Your task to perform on an android device: add a label to a message in the gmail app Image 0: 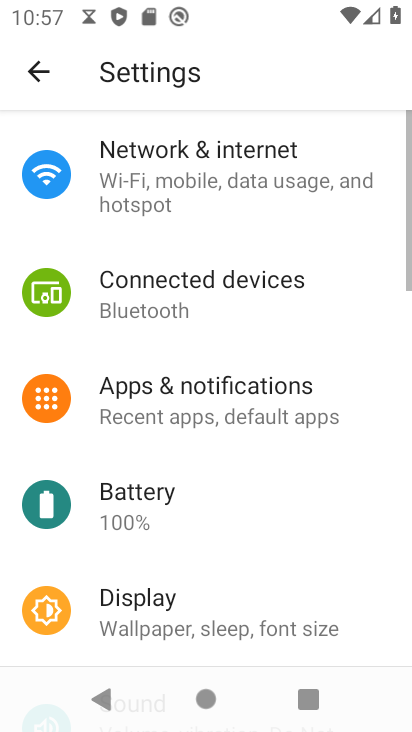
Step 0: press home button
Your task to perform on an android device: add a label to a message in the gmail app Image 1: 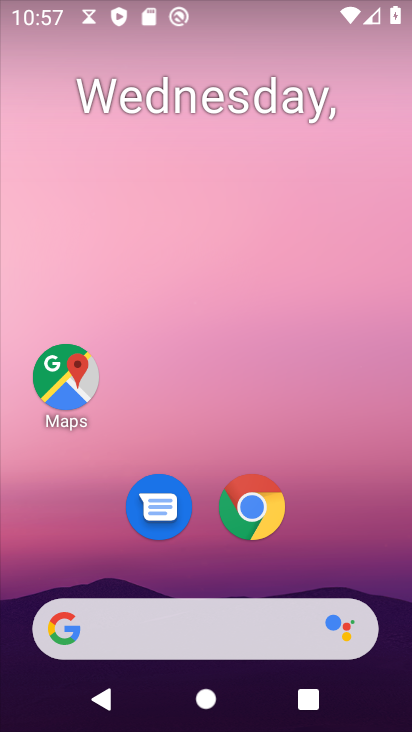
Step 1: drag from (287, 674) to (227, 215)
Your task to perform on an android device: add a label to a message in the gmail app Image 2: 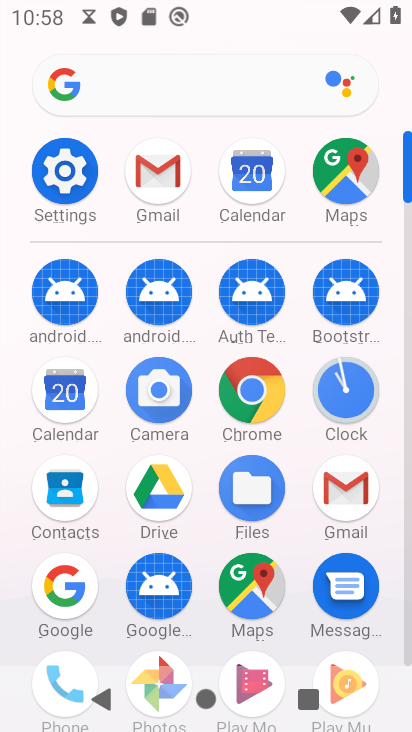
Step 2: click (168, 185)
Your task to perform on an android device: add a label to a message in the gmail app Image 3: 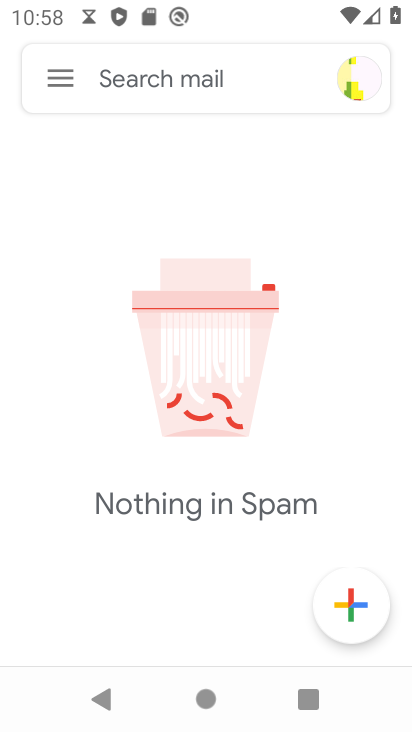
Step 3: click (52, 80)
Your task to perform on an android device: add a label to a message in the gmail app Image 4: 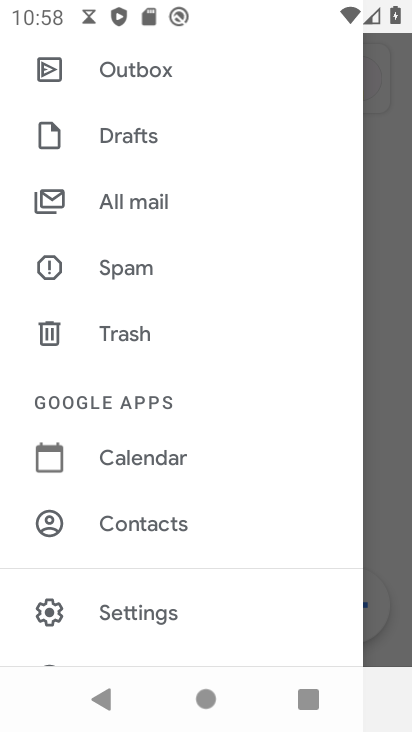
Step 4: click (142, 616)
Your task to perform on an android device: add a label to a message in the gmail app Image 5: 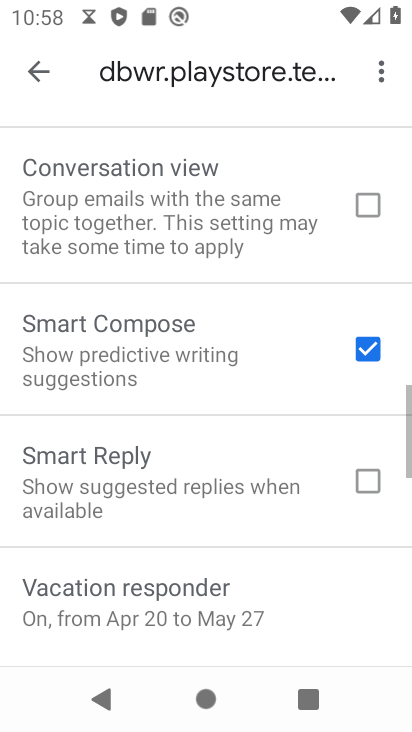
Step 5: drag from (131, 475) to (141, 662)
Your task to perform on an android device: add a label to a message in the gmail app Image 6: 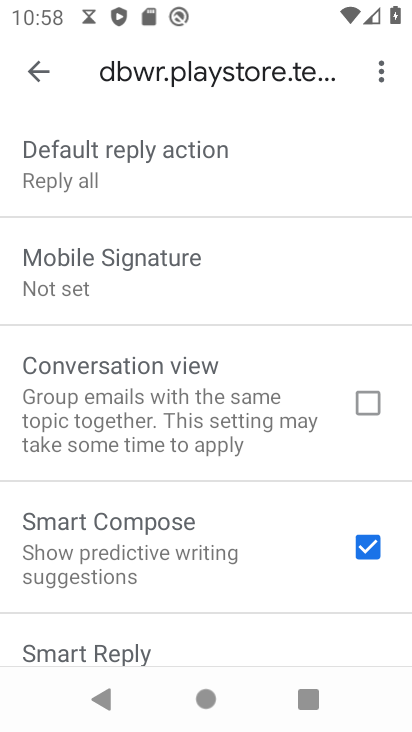
Step 6: drag from (154, 194) to (111, 611)
Your task to perform on an android device: add a label to a message in the gmail app Image 7: 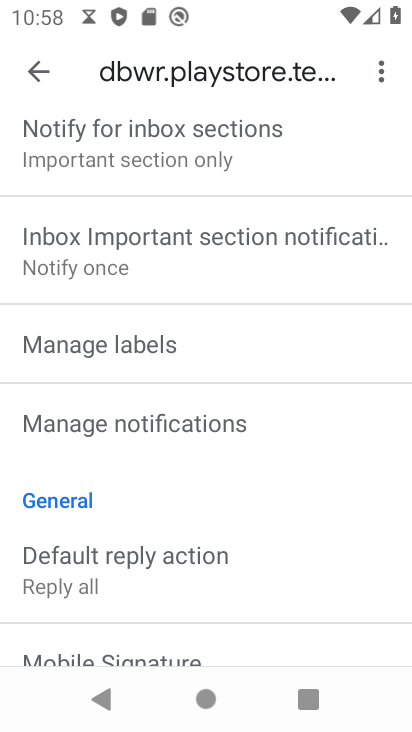
Step 7: drag from (193, 243) to (210, 470)
Your task to perform on an android device: add a label to a message in the gmail app Image 8: 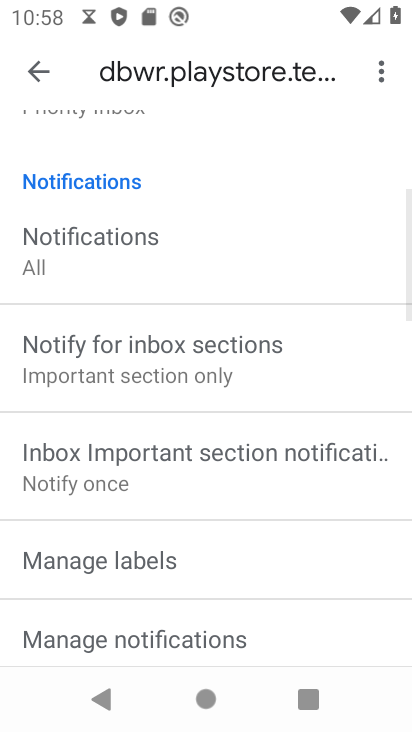
Step 8: click (136, 552)
Your task to perform on an android device: add a label to a message in the gmail app Image 9: 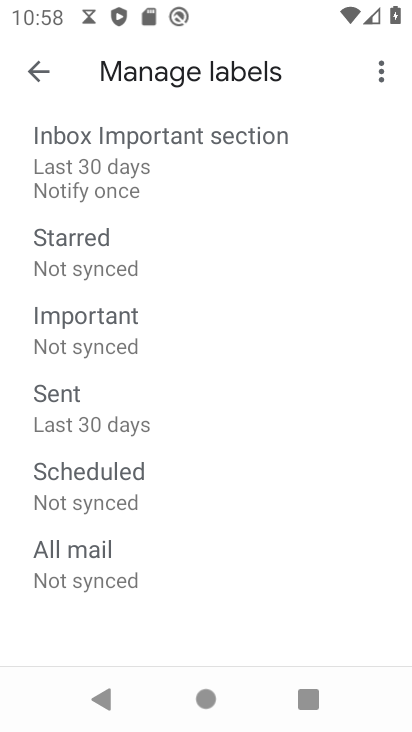
Step 9: click (69, 397)
Your task to perform on an android device: add a label to a message in the gmail app Image 10: 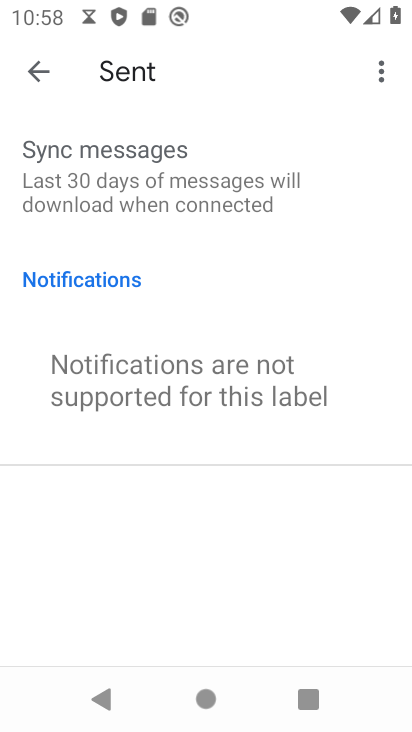
Step 10: task complete